Your task to perform on an android device: toggle javascript in the chrome app Image 0: 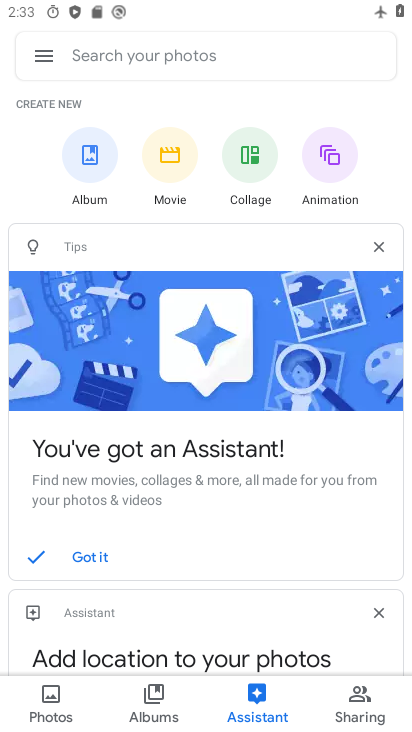
Step 0: press home button
Your task to perform on an android device: toggle javascript in the chrome app Image 1: 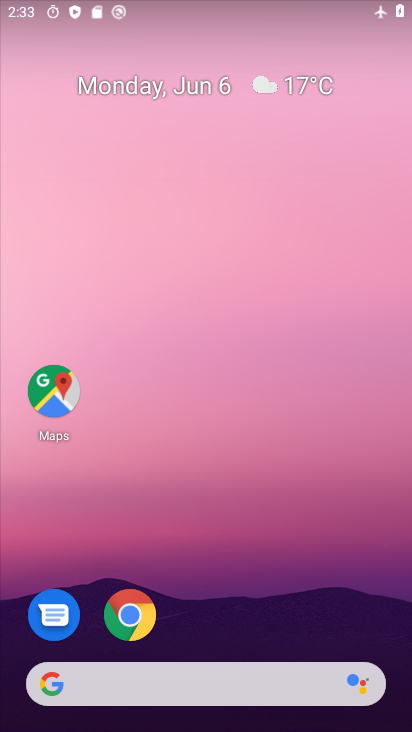
Step 1: click (155, 609)
Your task to perform on an android device: toggle javascript in the chrome app Image 2: 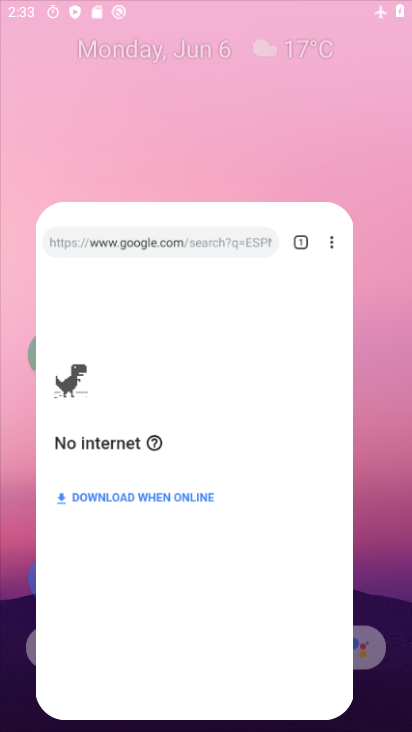
Step 2: click (142, 595)
Your task to perform on an android device: toggle javascript in the chrome app Image 3: 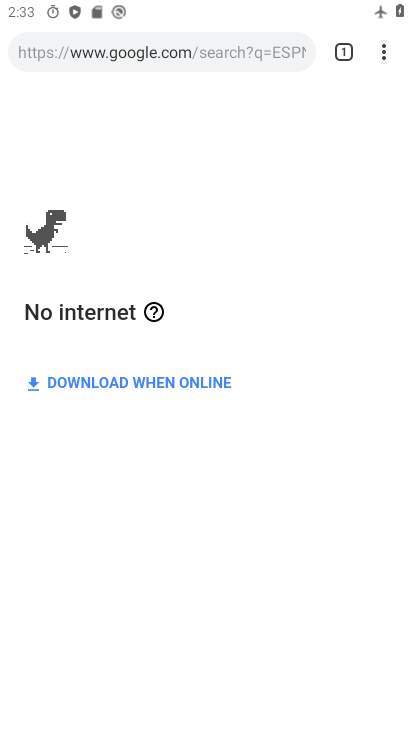
Step 3: click (385, 46)
Your task to perform on an android device: toggle javascript in the chrome app Image 4: 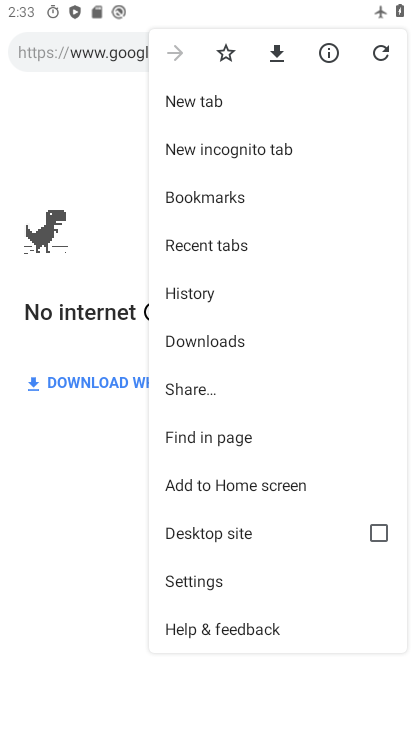
Step 4: click (216, 571)
Your task to perform on an android device: toggle javascript in the chrome app Image 5: 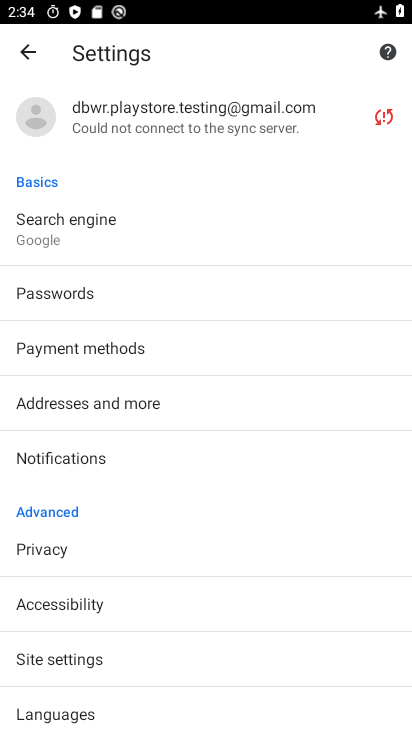
Step 5: click (79, 661)
Your task to perform on an android device: toggle javascript in the chrome app Image 6: 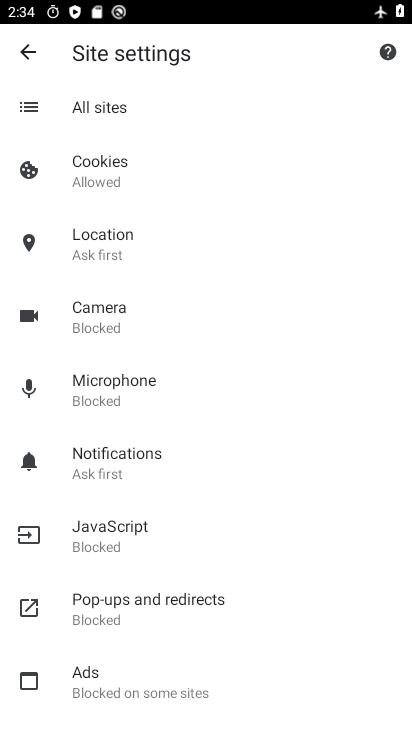
Step 6: click (120, 536)
Your task to perform on an android device: toggle javascript in the chrome app Image 7: 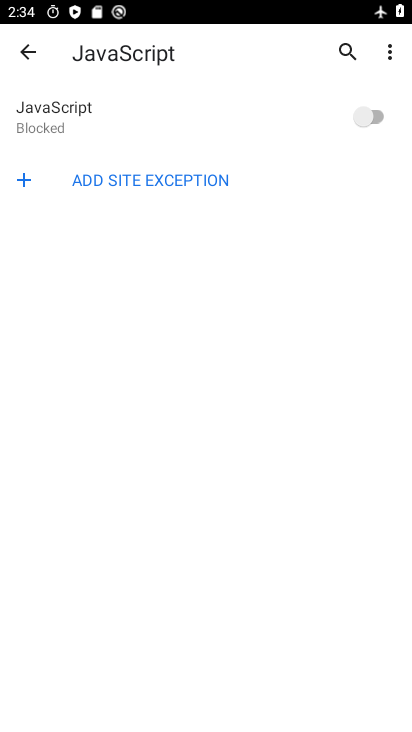
Step 7: click (336, 105)
Your task to perform on an android device: toggle javascript in the chrome app Image 8: 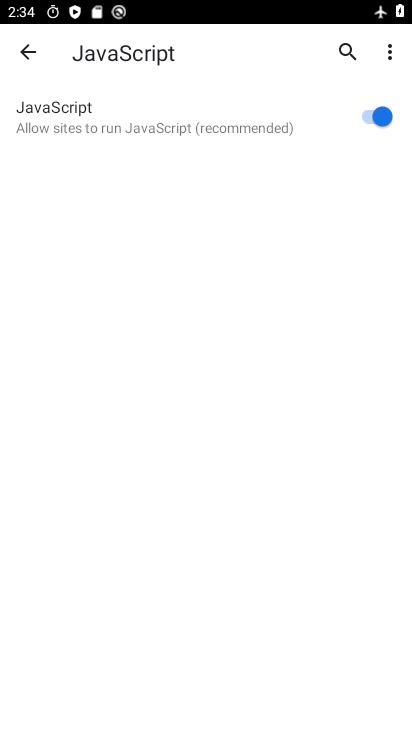
Step 8: task complete